Your task to perform on an android device: Clear the cart on newegg. Add "razer blade" to the cart on newegg Image 0: 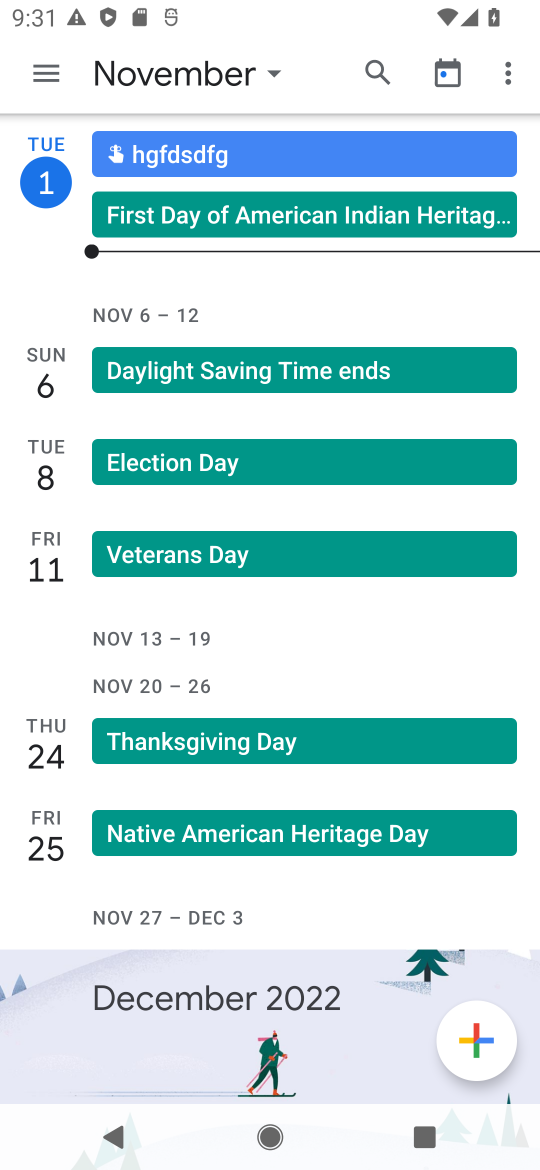
Step 0: press home button
Your task to perform on an android device: Clear the cart on newegg. Add "razer blade" to the cart on newegg Image 1: 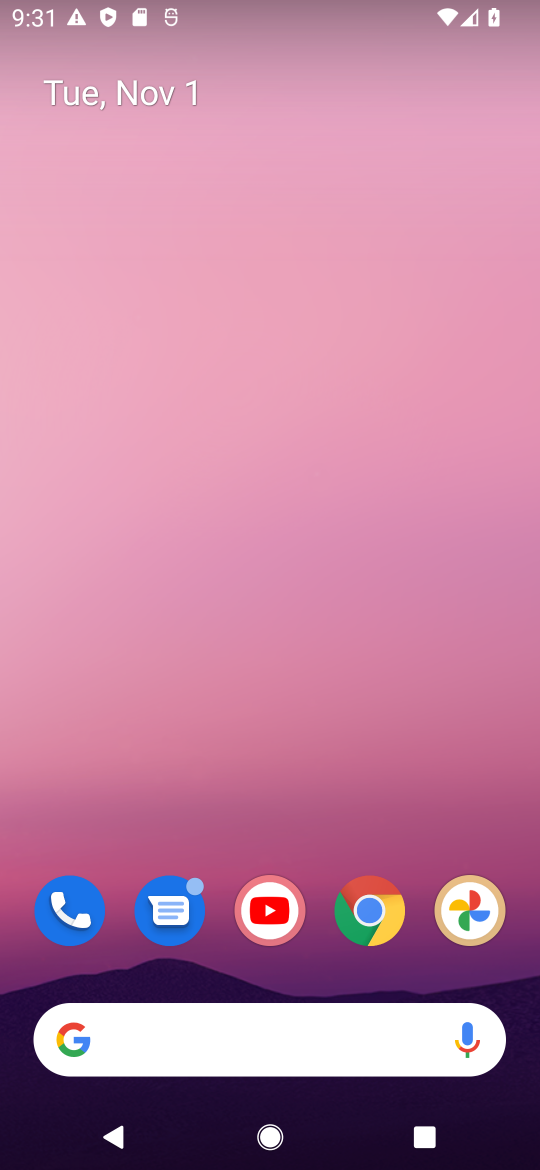
Step 1: click (368, 914)
Your task to perform on an android device: Clear the cart on newegg. Add "razer blade" to the cart on newegg Image 2: 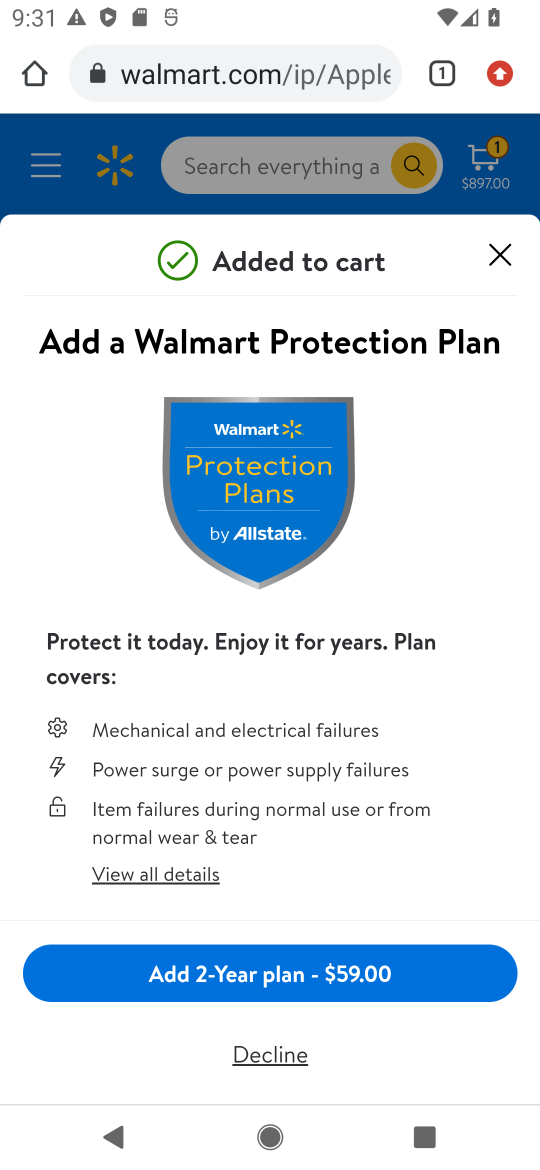
Step 2: click (335, 70)
Your task to perform on an android device: Clear the cart on newegg. Add "razer blade" to the cart on newegg Image 3: 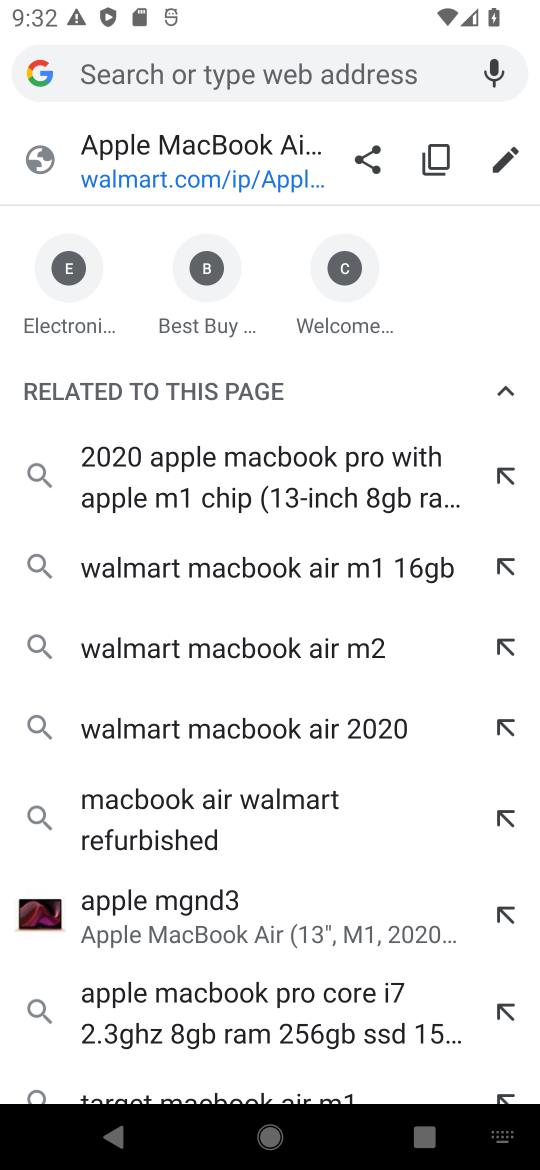
Step 3: type "newegg.com"
Your task to perform on an android device: Clear the cart on newegg. Add "razer blade" to the cart on newegg Image 4: 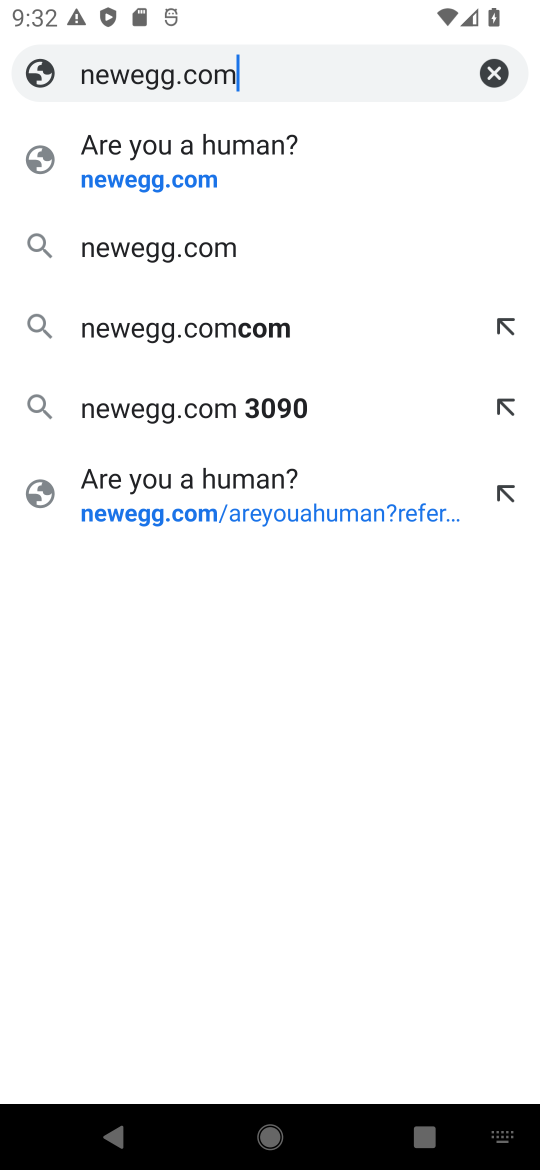
Step 4: click (181, 249)
Your task to perform on an android device: Clear the cart on newegg. Add "razer blade" to the cart on newegg Image 5: 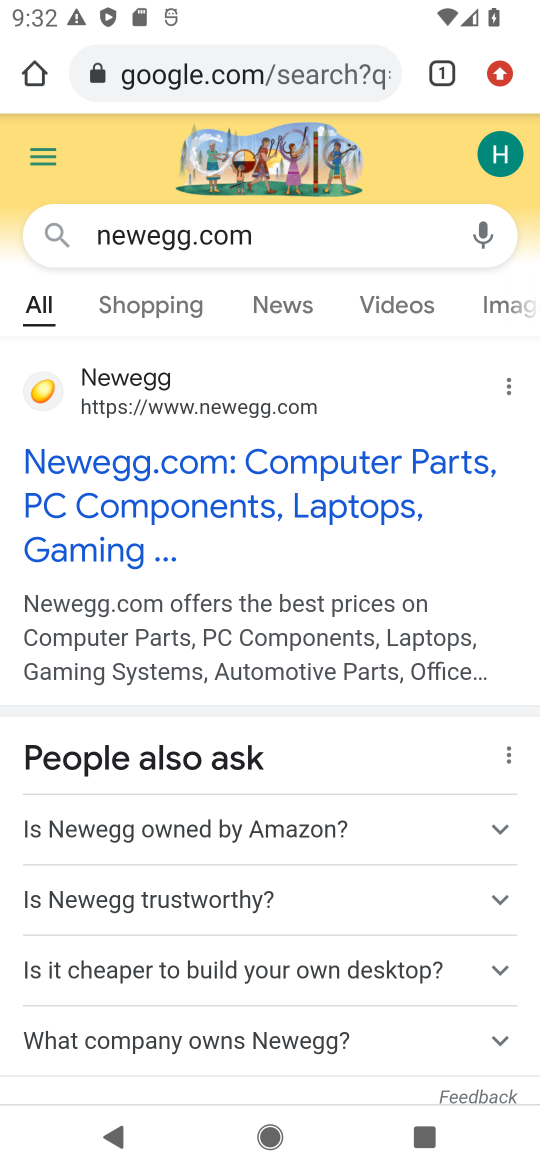
Step 5: click (168, 416)
Your task to perform on an android device: Clear the cart on newegg. Add "razer blade" to the cart on newegg Image 6: 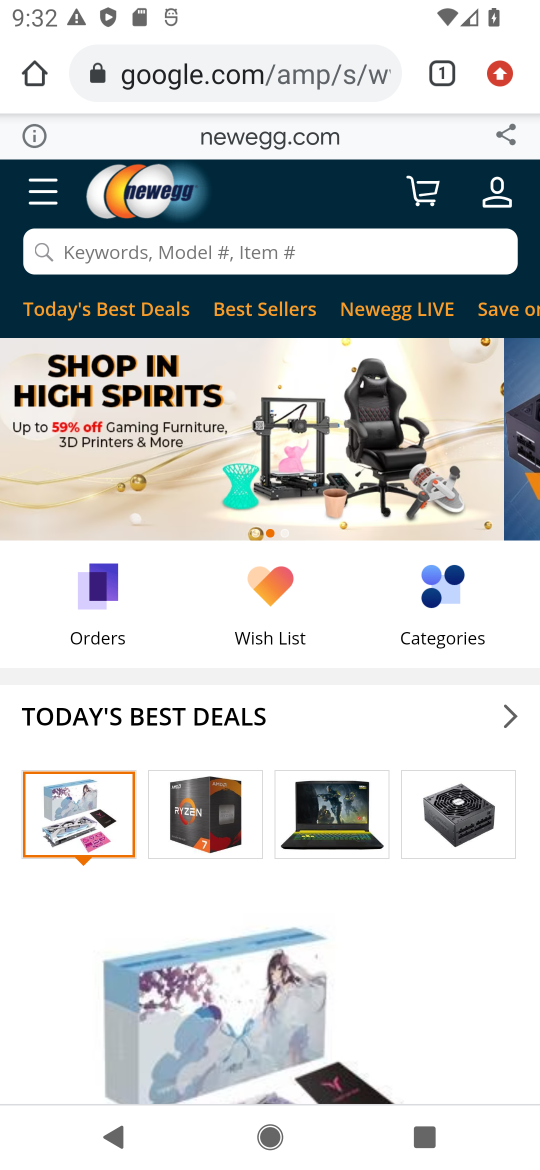
Step 6: click (235, 256)
Your task to perform on an android device: Clear the cart on newegg. Add "razer blade" to the cart on newegg Image 7: 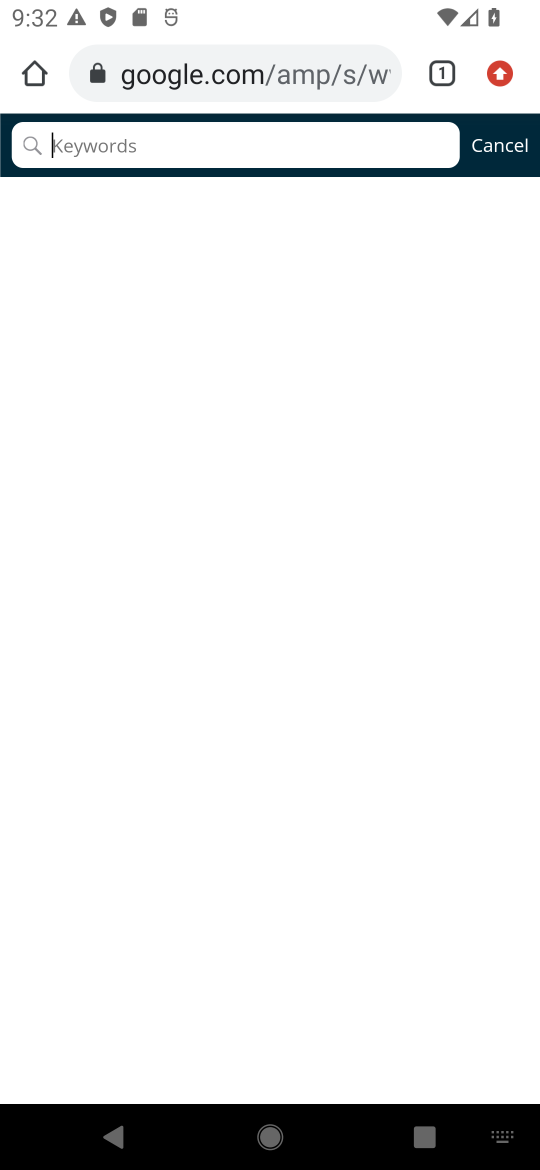
Step 7: type "razer blade"
Your task to perform on an android device: Clear the cart on newegg. Add "razer blade" to the cart on newegg Image 8: 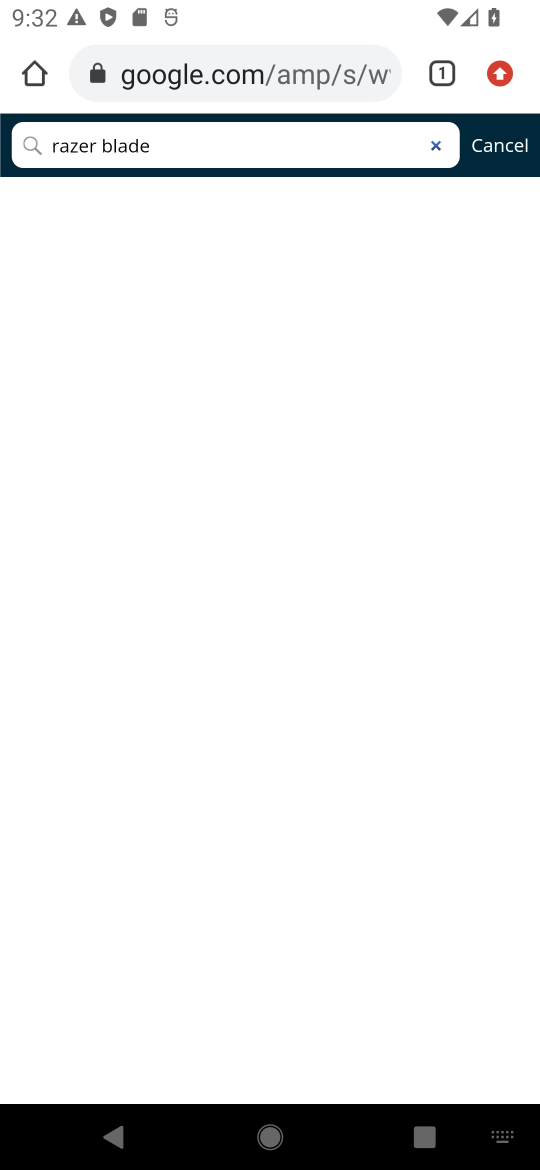
Step 8: click (25, 144)
Your task to perform on an android device: Clear the cart on newegg. Add "razer blade" to the cart on newegg Image 9: 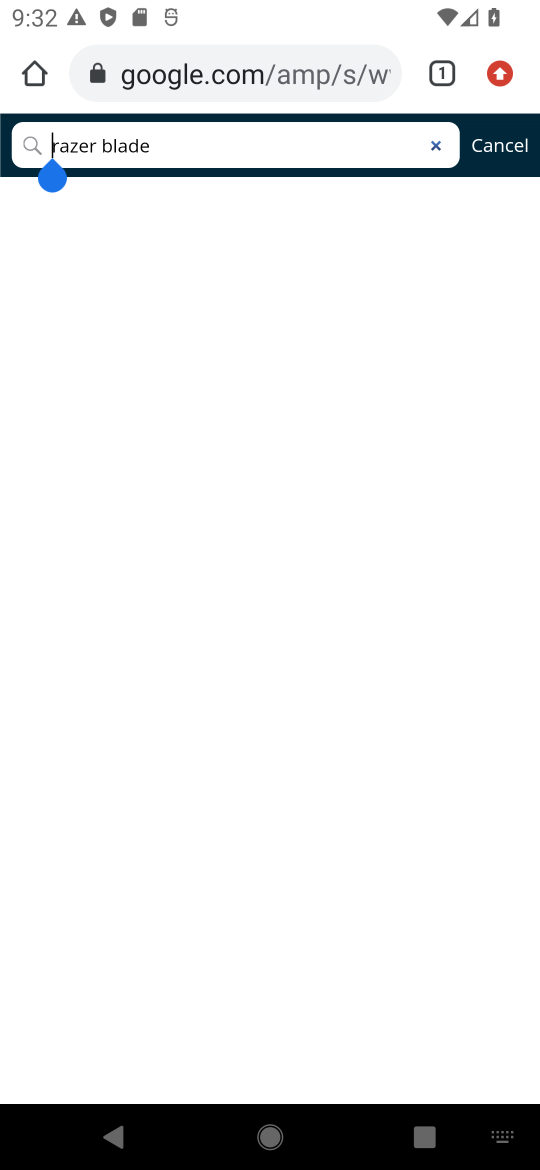
Step 9: task complete